Your task to perform on an android device: Search for pizza restaurants on Maps Image 0: 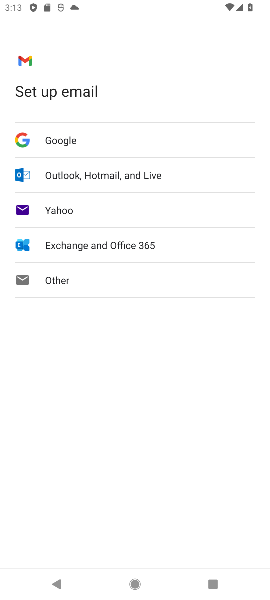
Step 0: press home button
Your task to perform on an android device: Search for pizza restaurants on Maps Image 1: 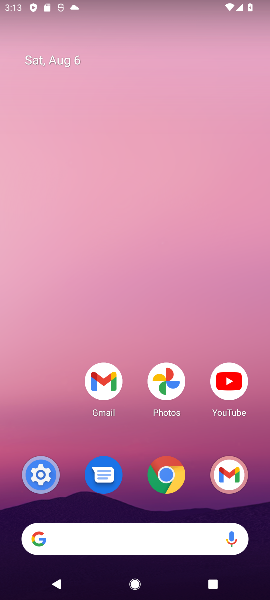
Step 1: drag from (47, 594) to (178, 169)
Your task to perform on an android device: Search for pizza restaurants on Maps Image 2: 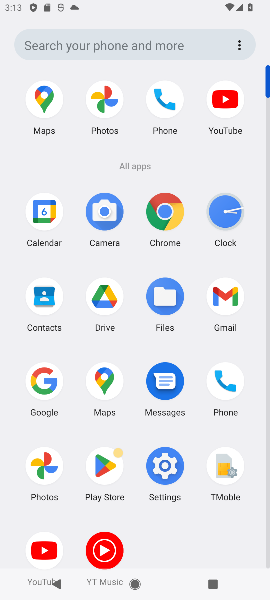
Step 2: click (113, 400)
Your task to perform on an android device: Search for pizza restaurants on Maps Image 3: 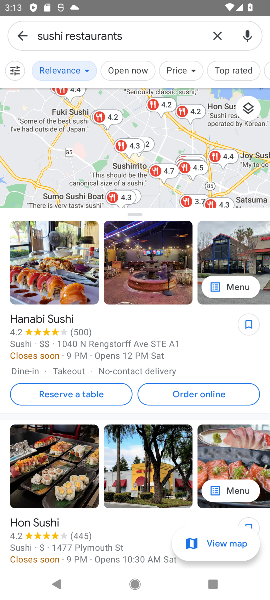
Step 3: click (23, 41)
Your task to perform on an android device: Search for pizza restaurants on Maps Image 4: 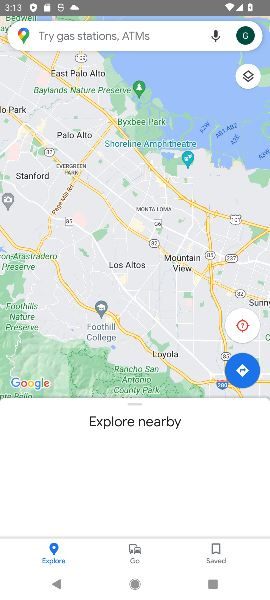
Step 4: click (52, 39)
Your task to perform on an android device: Search for pizza restaurants on Maps Image 5: 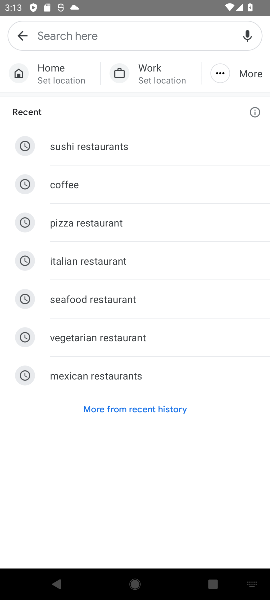
Step 5: click (90, 222)
Your task to perform on an android device: Search for pizza restaurants on Maps Image 6: 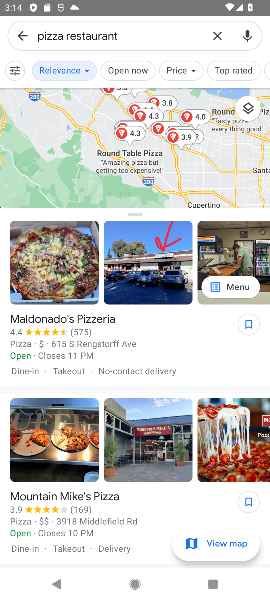
Step 6: task complete